Your task to perform on an android device: turn off javascript in the chrome app Image 0: 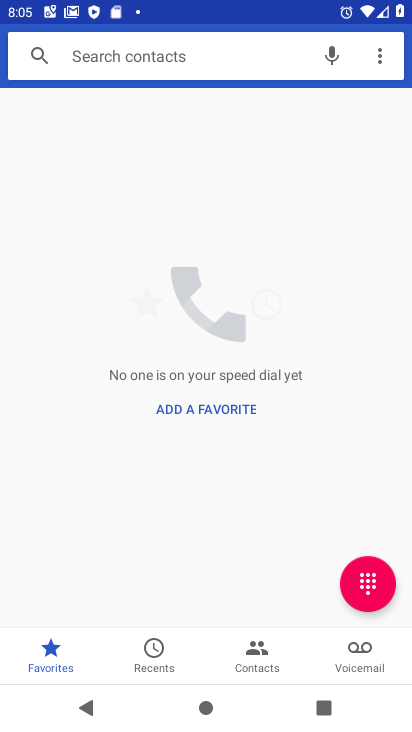
Step 0: press back button
Your task to perform on an android device: turn off javascript in the chrome app Image 1: 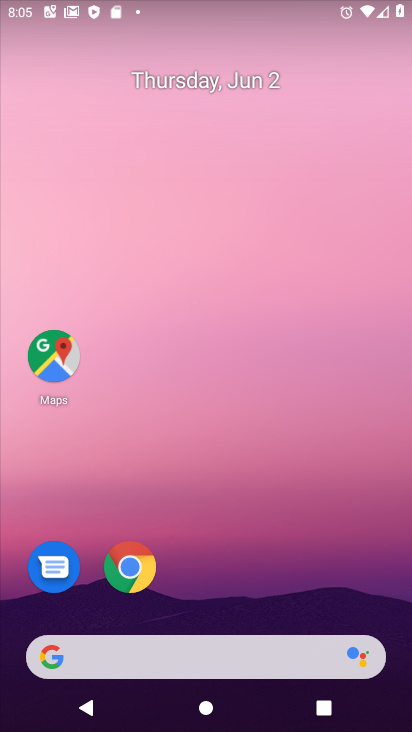
Step 1: click (128, 569)
Your task to perform on an android device: turn off javascript in the chrome app Image 2: 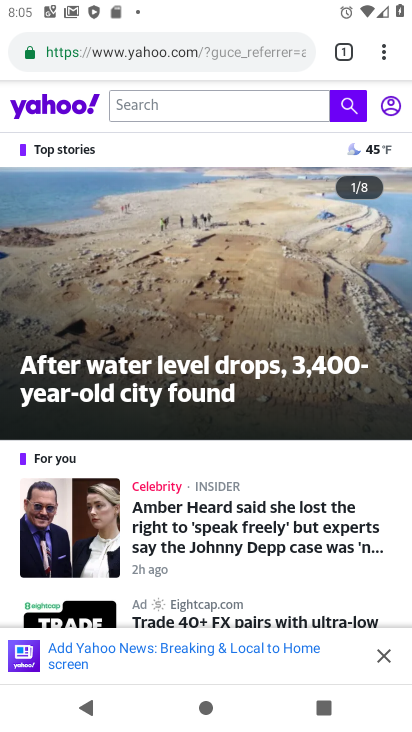
Step 2: click (384, 51)
Your task to perform on an android device: turn off javascript in the chrome app Image 3: 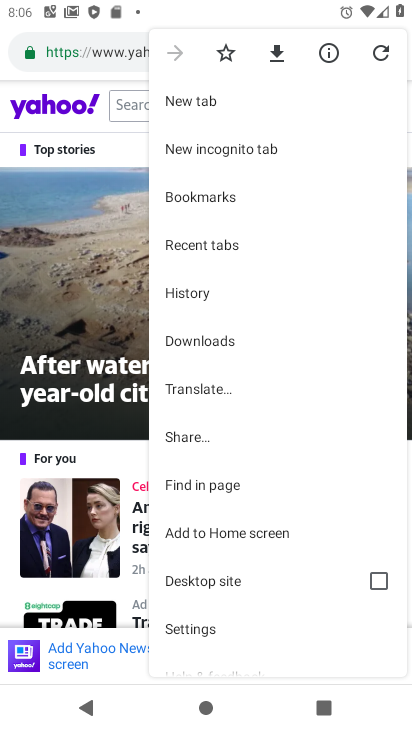
Step 3: click (202, 624)
Your task to perform on an android device: turn off javascript in the chrome app Image 4: 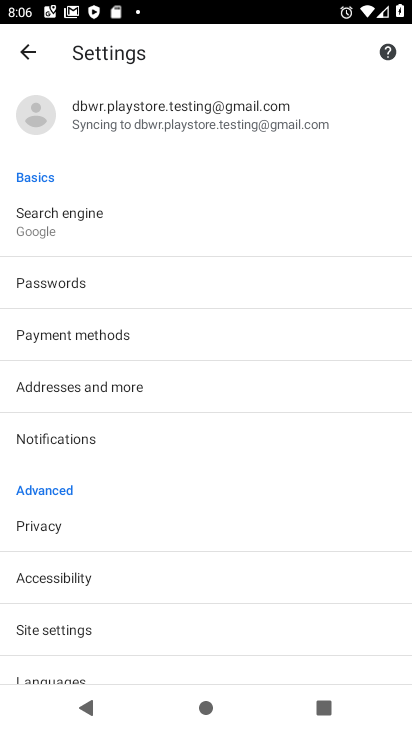
Step 4: click (52, 629)
Your task to perform on an android device: turn off javascript in the chrome app Image 5: 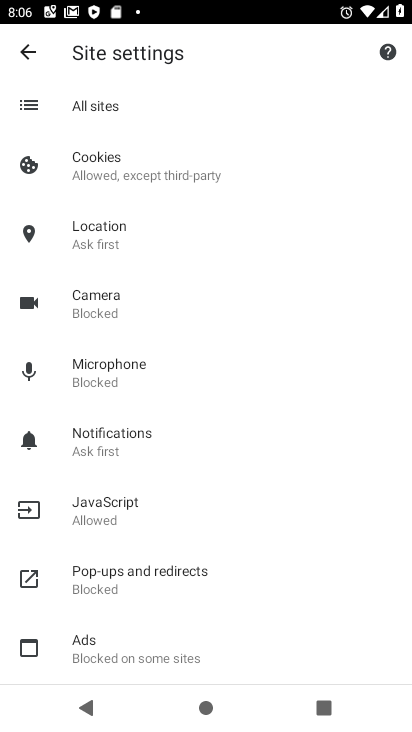
Step 5: click (112, 510)
Your task to perform on an android device: turn off javascript in the chrome app Image 6: 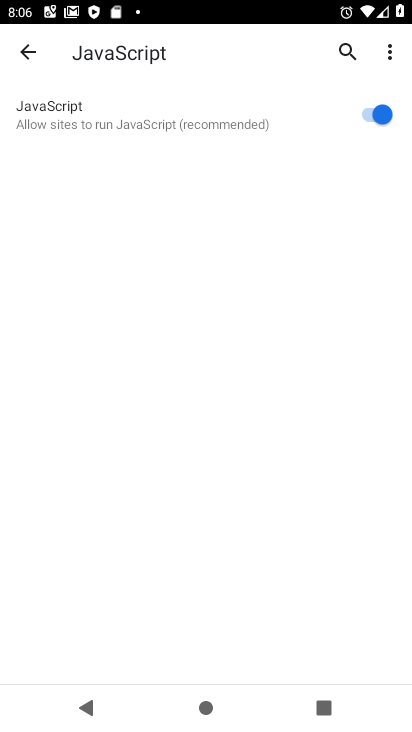
Step 6: click (362, 114)
Your task to perform on an android device: turn off javascript in the chrome app Image 7: 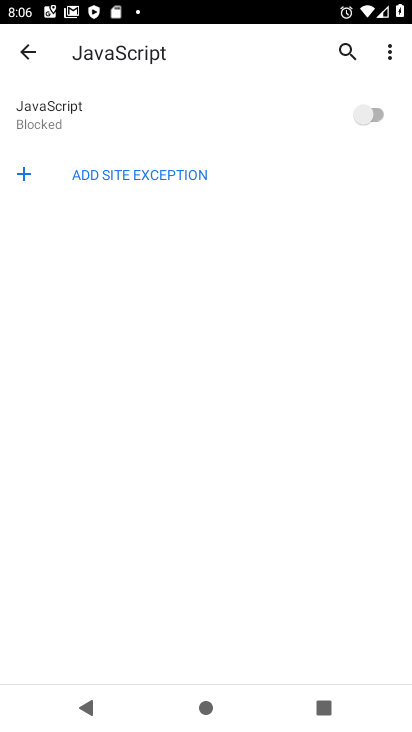
Step 7: task complete